Your task to perform on an android device: Add razer blade to the cart on ebay Image 0: 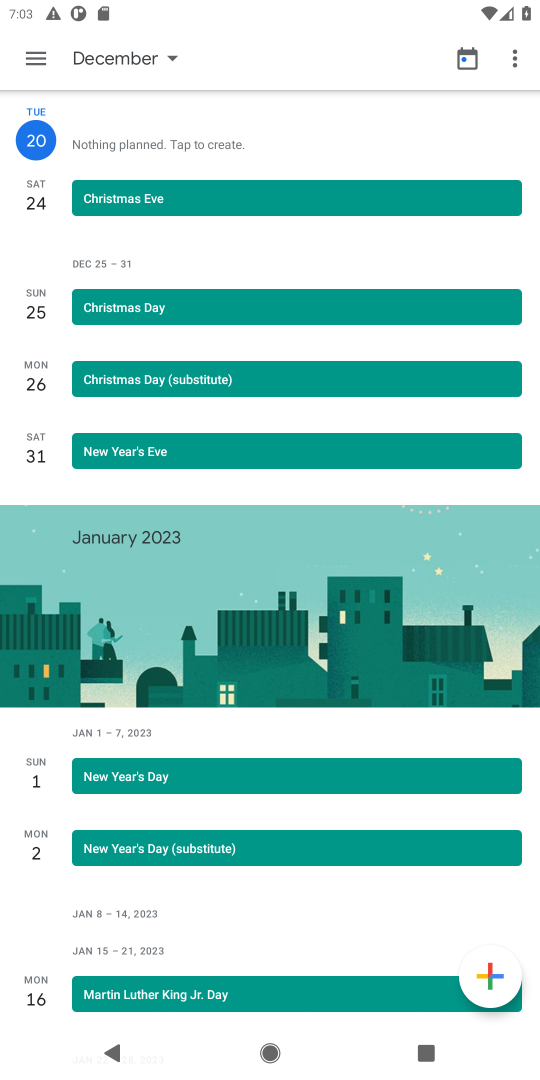
Step 0: press home button
Your task to perform on an android device: Add razer blade to the cart on ebay Image 1: 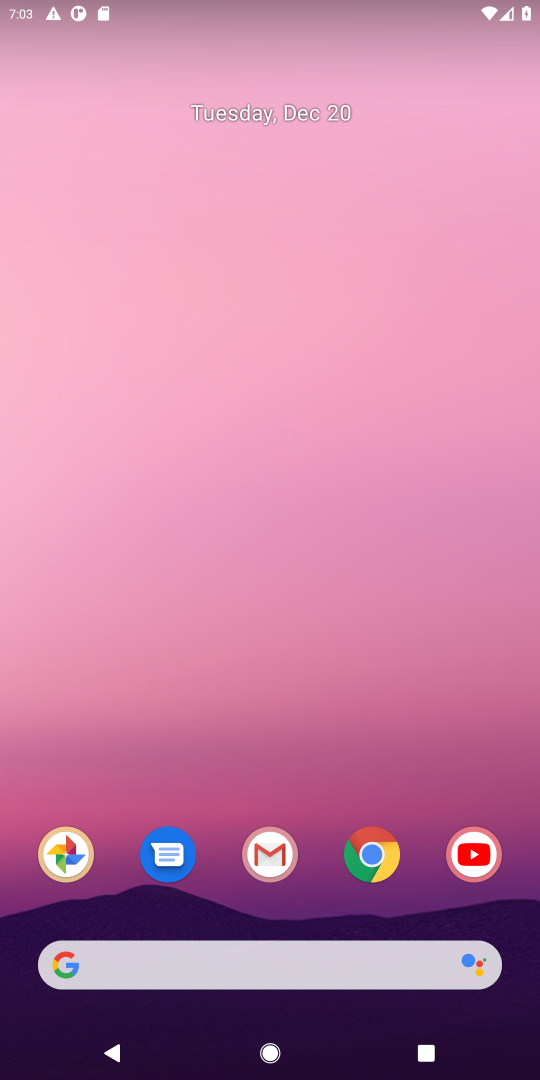
Step 1: click (355, 856)
Your task to perform on an android device: Add razer blade to the cart on ebay Image 2: 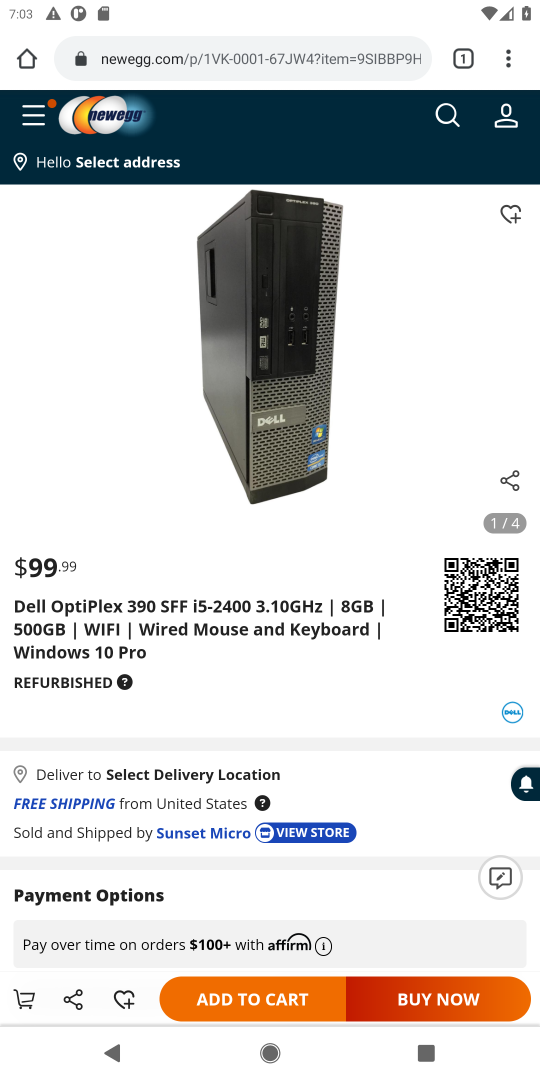
Step 2: click (151, 57)
Your task to perform on an android device: Add razer blade to the cart on ebay Image 3: 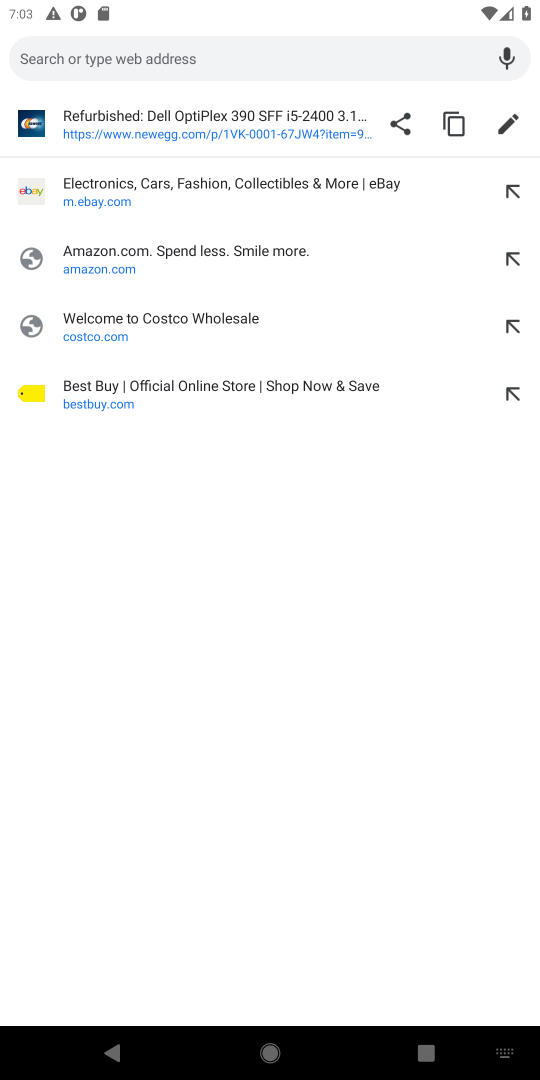
Step 3: click (99, 190)
Your task to perform on an android device: Add razer blade to the cart on ebay Image 4: 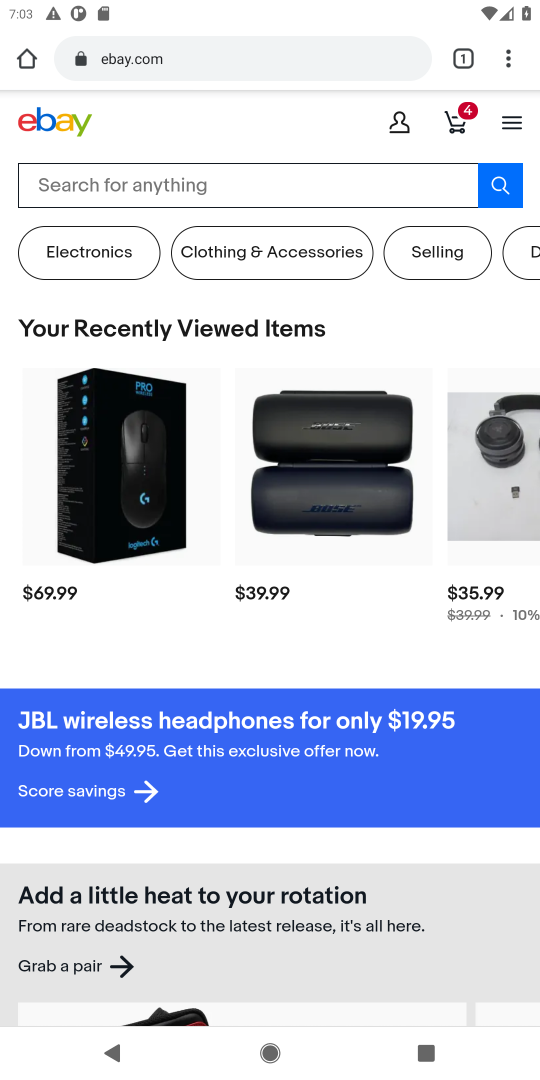
Step 4: click (98, 184)
Your task to perform on an android device: Add razer blade to the cart on ebay Image 5: 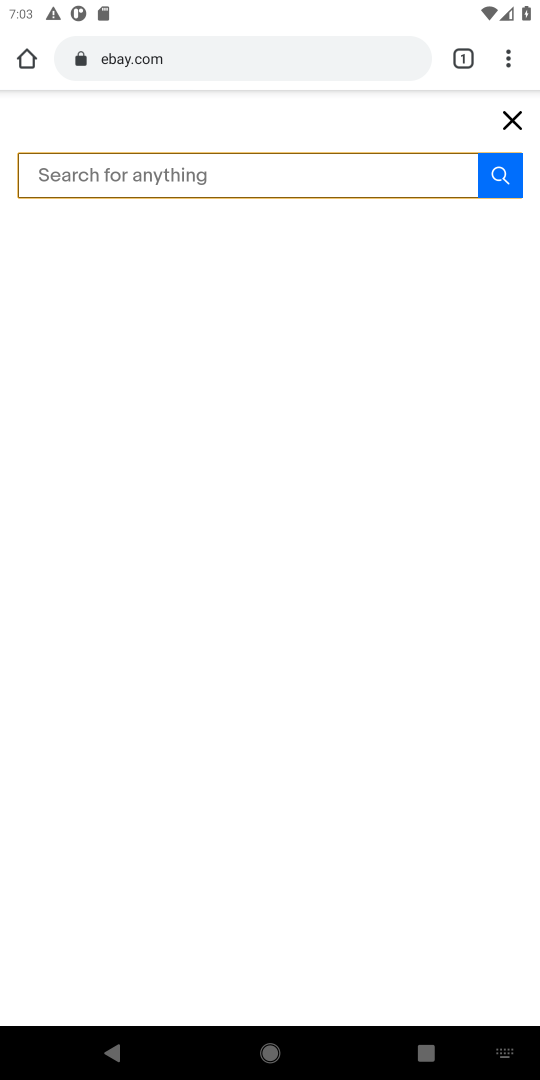
Step 5: type "razer blade"
Your task to perform on an android device: Add razer blade to the cart on ebay Image 6: 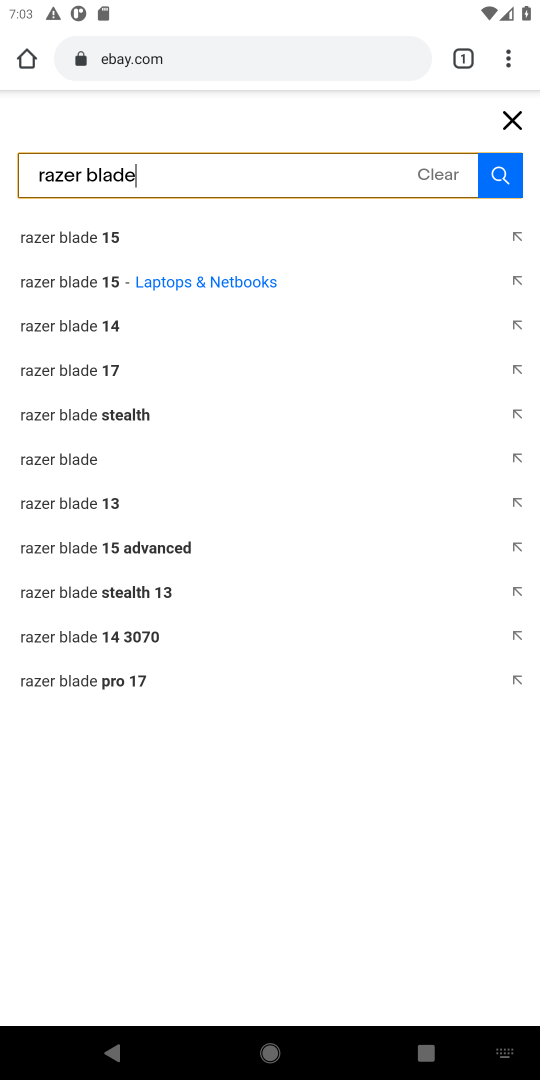
Step 6: click (51, 461)
Your task to perform on an android device: Add razer blade to the cart on ebay Image 7: 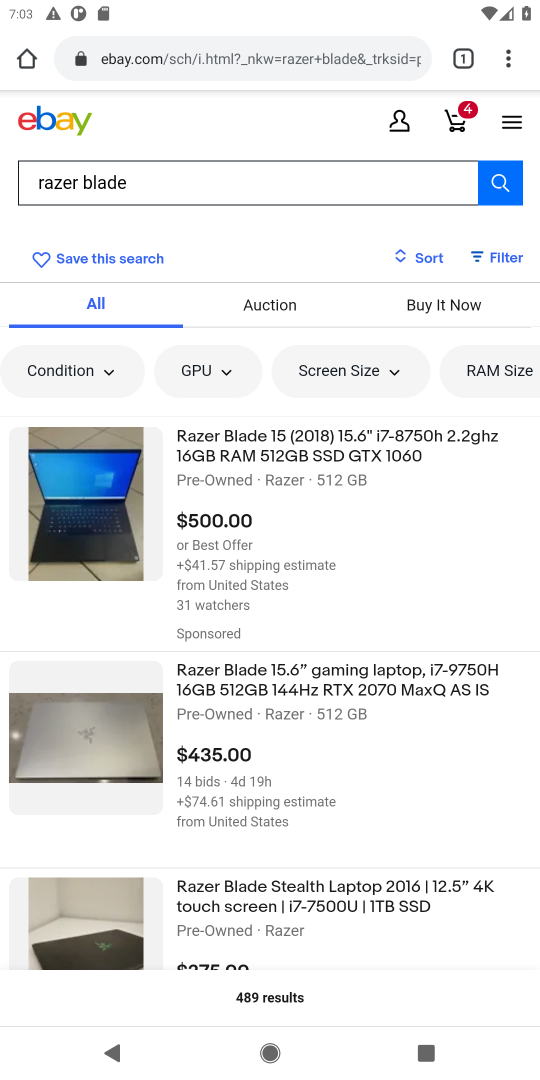
Step 7: click (254, 463)
Your task to perform on an android device: Add razer blade to the cart on ebay Image 8: 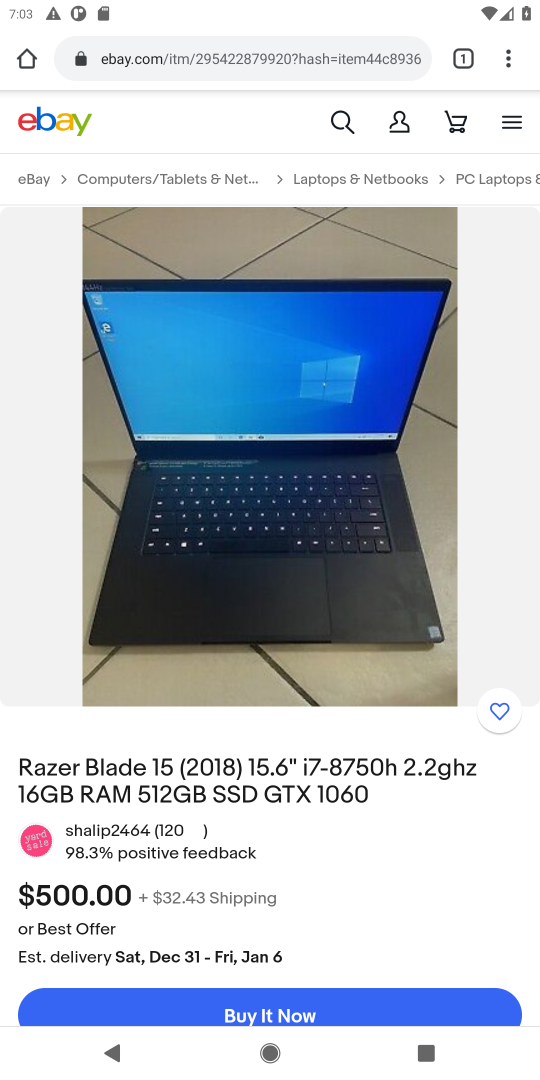
Step 8: drag from (236, 801) to (232, 428)
Your task to perform on an android device: Add razer blade to the cart on ebay Image 9: 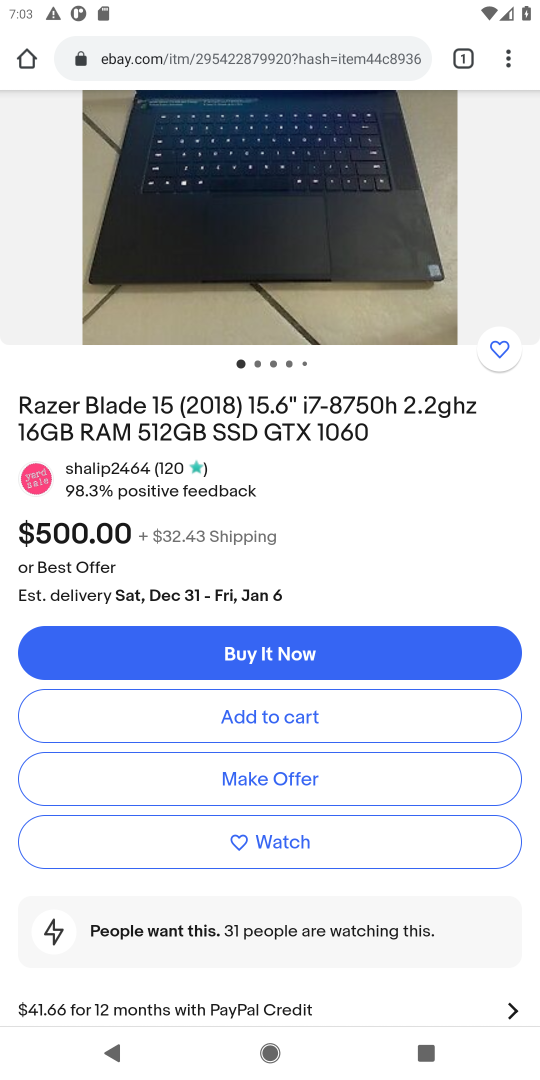
Step 9: click (244, 728)
Your task to perform on an android device: Add razer blade to the cart on ebay Image 10: 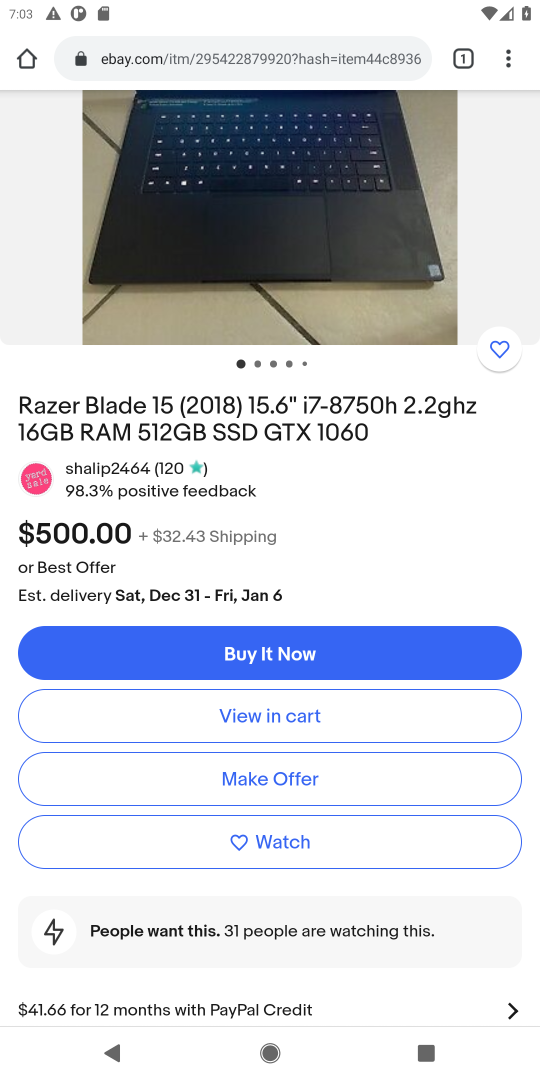
Step 10: task complete